Your task to perform on an android device: Open my contact list Image 0: 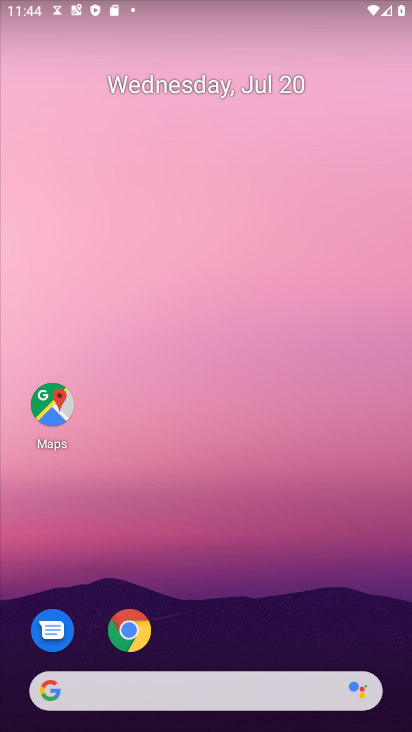
Step 0: drag from (30, 689) to (269, 163)
Your task to perform on an android device: Open my contact list Image 1: 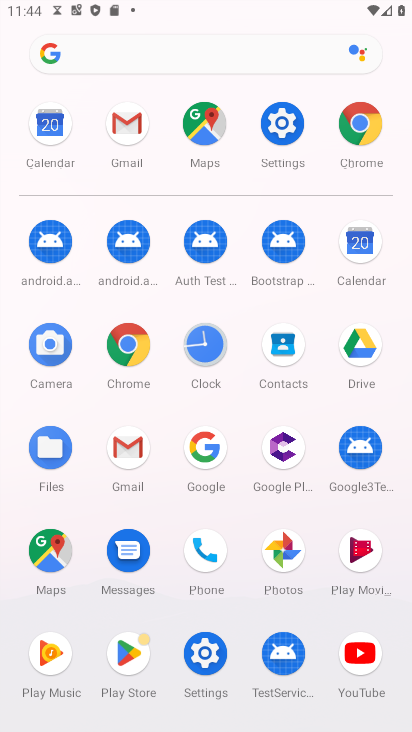
Step 1: click (296, 364)
Your task to perform on an android device: Open my contact list Image 2: 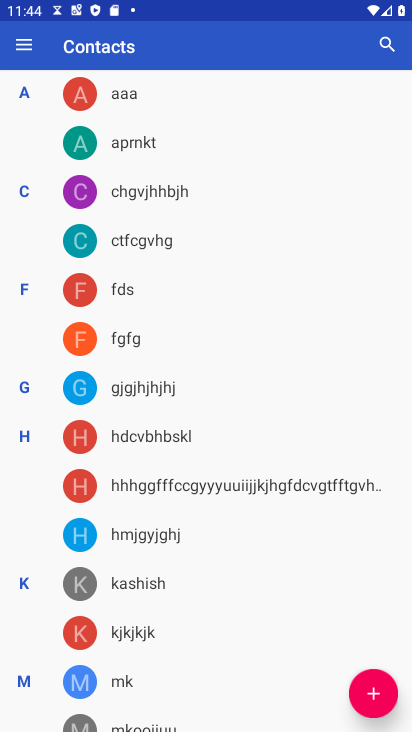
Step 2: task complete